Your task to perform on an android device: Open CNN.com Image 0: 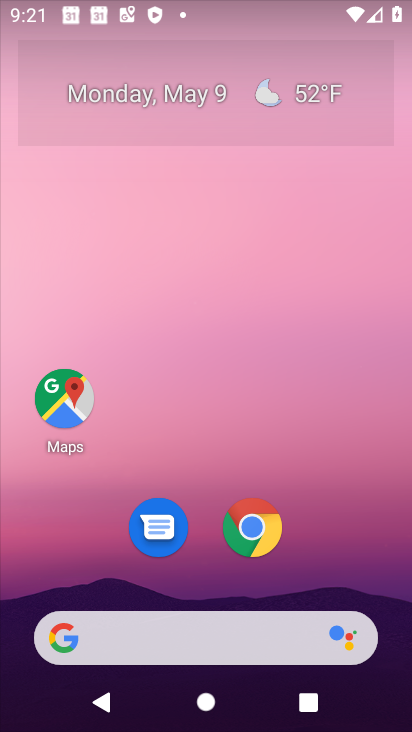
Step 0: drag from (202, 569) to (176, 5)
Your task to perform on an android device: Open CNN.com Image 1: 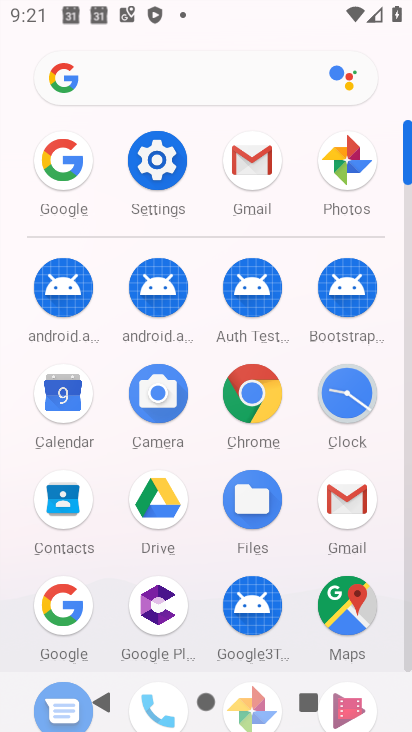
Step 1: click (59, 158)
Your task to perform on an android device: Open CNN.com Image 2: 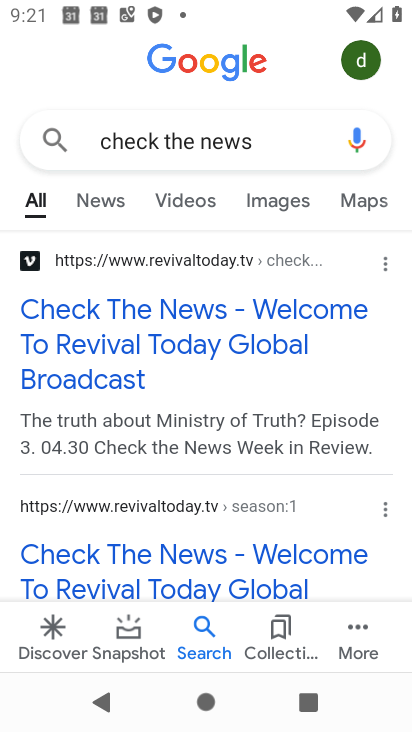
Step 2: click (272, 128)
Your task to perform on an android device: Open CNN.com Image 3: 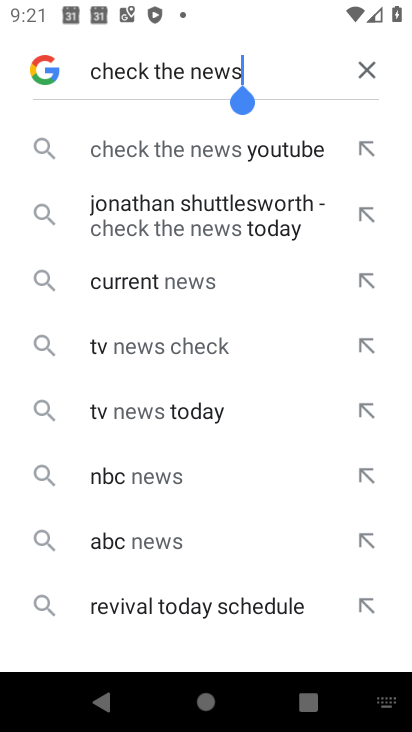
Step 3: drag from (165, 498) to (181, 145)
Your task to perform on an android device: Open CNN.com Image 4: 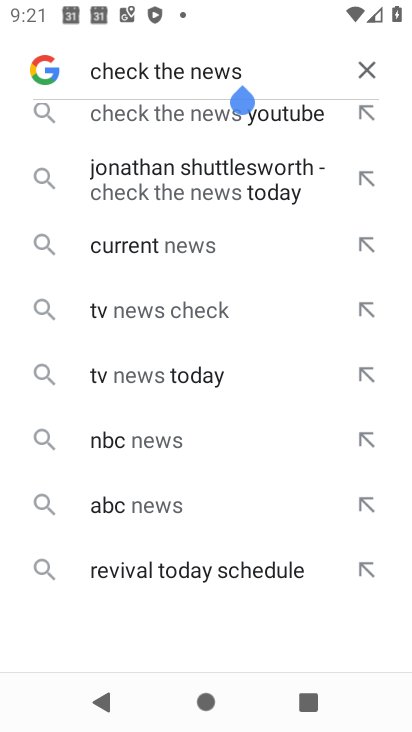
Step 4: click (359, 65)
Your task to perform on an android device: Open CNN.com Image 5: 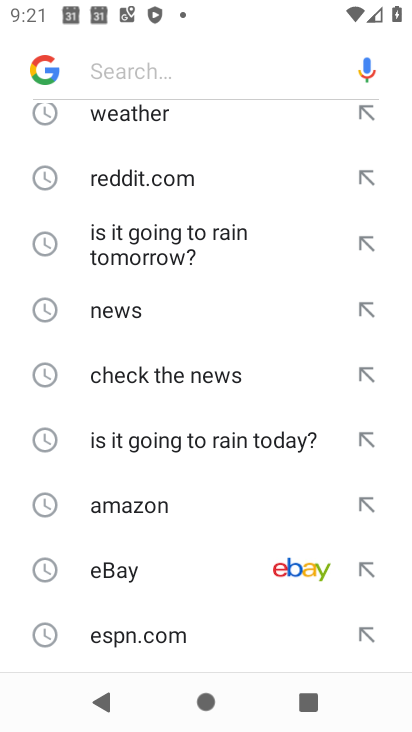
Step 5: drag from (148, 550) to (233, 31)
Your task to perform on an android device: Open CNN.com Image 6: 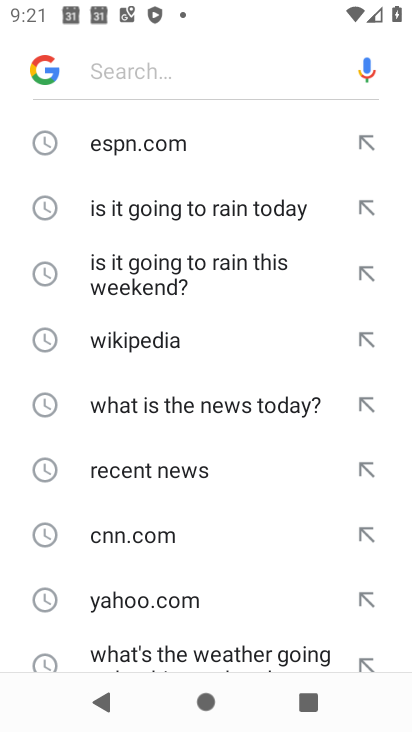
Step 6: click (107, 540)
Your task to perform on an android device: Open CNN.com Image 7: 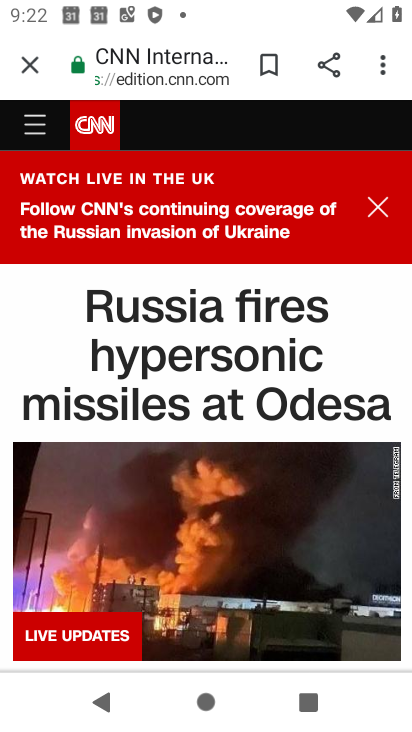
Step 7: task complete